Your task to perform on an android device: turn off data saver in the chrome app Image 0: 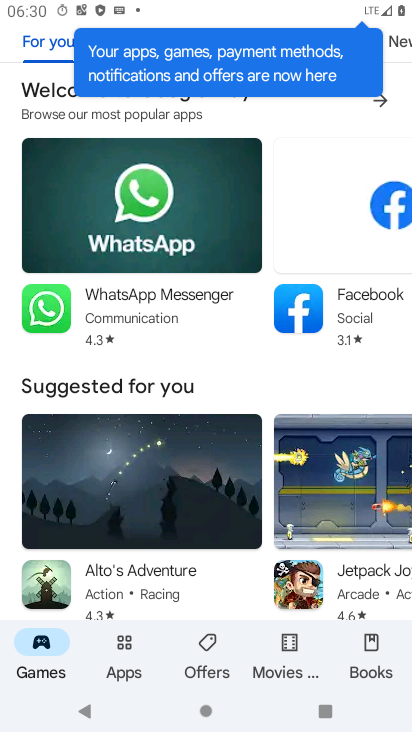
Step 0: press home button
Your task to perform on an android device: turn off data saver in the chrome app Image 1: 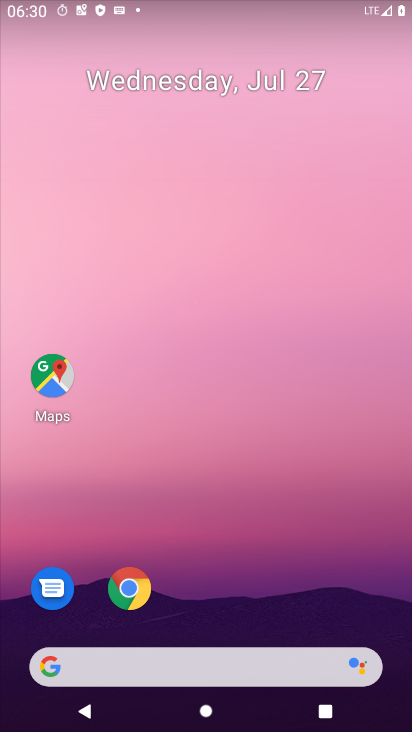
Step 1: drag from (258, 665) to (269, 123)
Your task to perform on an android device: turn off data saver in the chrome app Image 2: 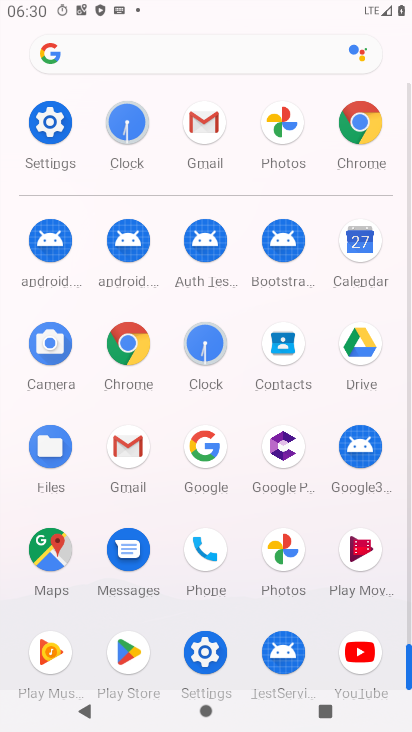
Step 2: click (129, 341)
Your task to perform on an android device: turn off data saver in the chrome app Image 3: 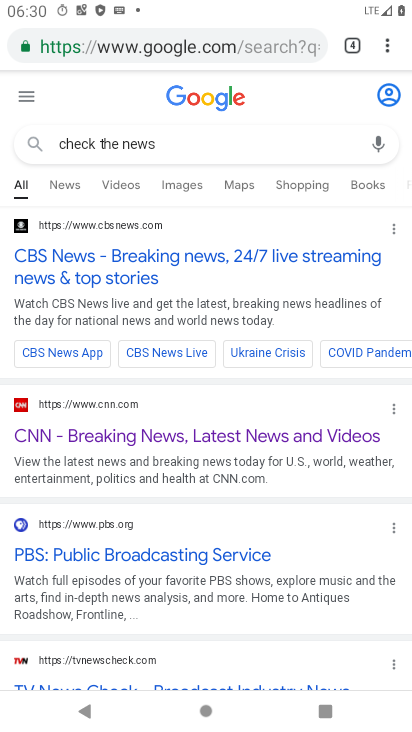
Step 3: click (389, 43)
Your task to perform on an android device: turn off data saver in the chrome app Image 4: 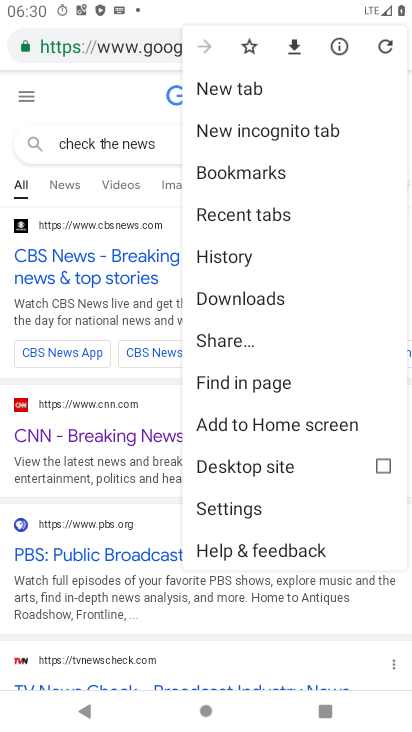
Step 4: click (246, 507)
Your task to perform on an android device: turn off data saver in the chrome app Image 5: 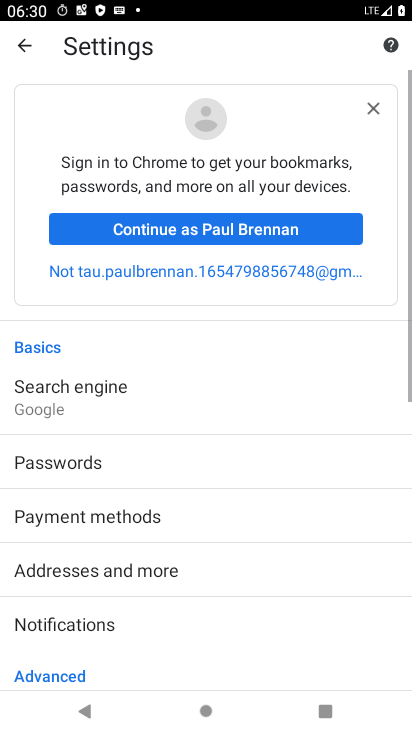
Step 5: drag from (247, 539) to (362, 26)
Your task to perform on an android device: turn off data saver in the chrome app Image 6: 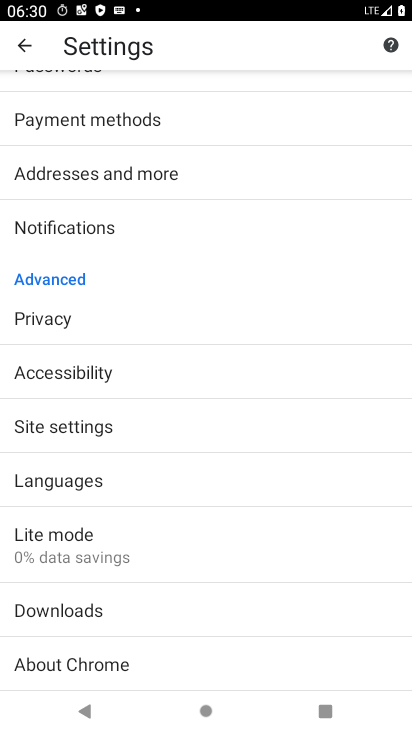
Step 6: click (182, 548)
Your task to perform on an android device: turn off data saver in the chrome app Image 7: 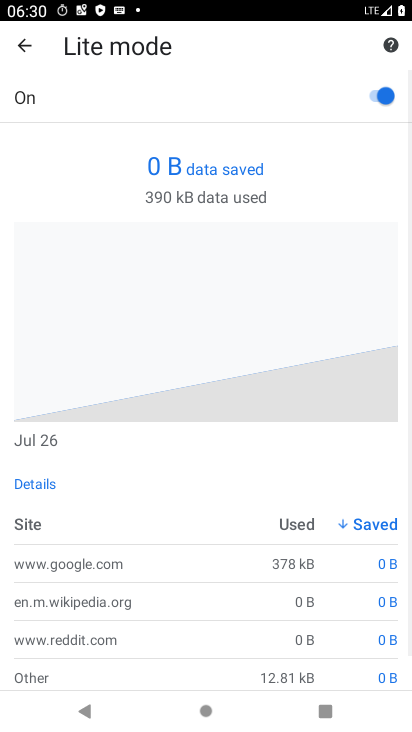
Step 7: click (387, 89)
Your task to perform on an android device: turn off data saver in the chrome app Image 8: 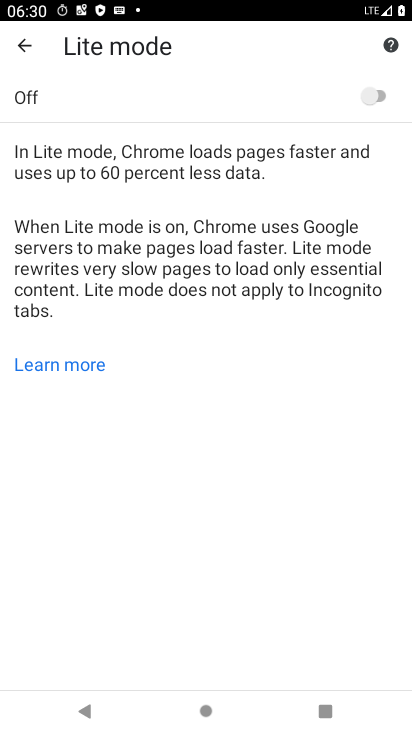
Step 8: task complete